Your task to perform on an android device: What is the news today? Image 0: 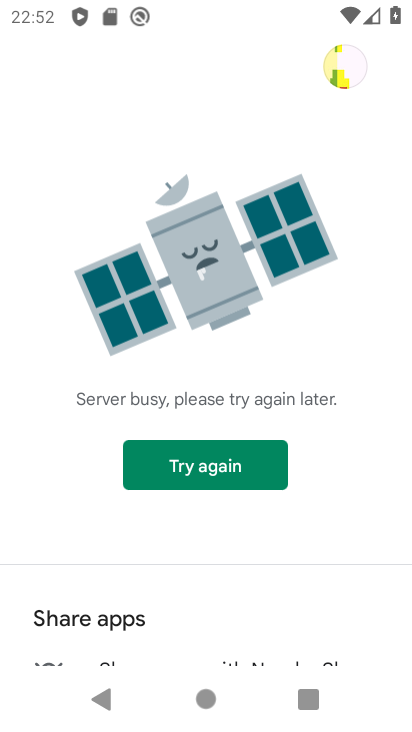
Step 0: press home button
Your task to perform on an android device: What is the news today? Image 1: 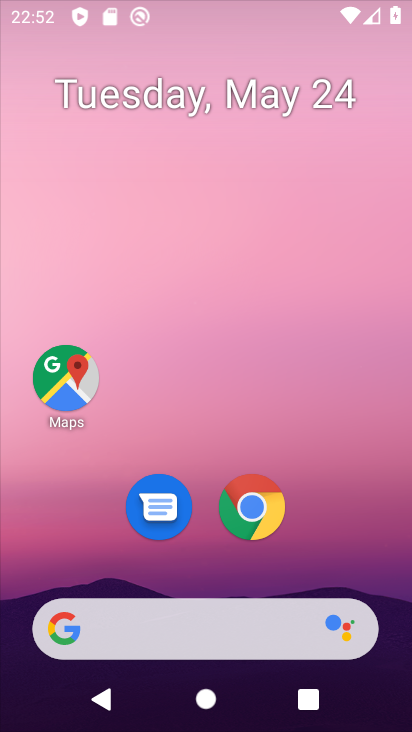
Step 1: drag from (286, 690) to (304, 135)
Your task to perform on an android device: What is the news today? Image 2: 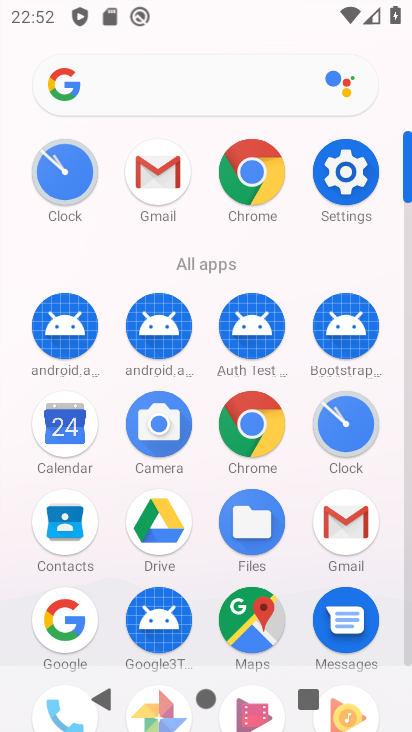
Step 2: click (242, 435)
Your task to perform on an android device: What is the news today? Image 3: 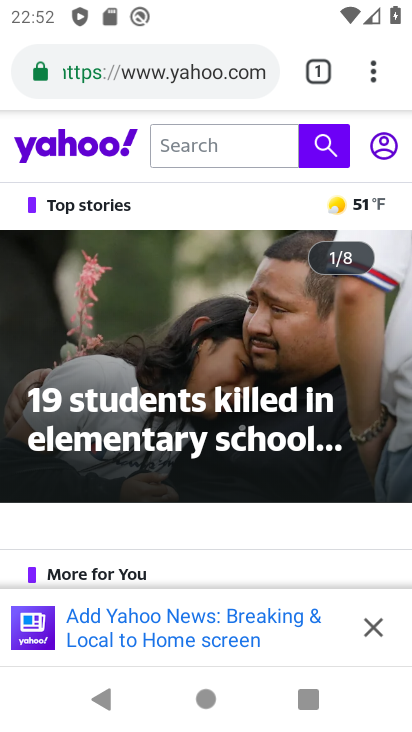
Step 3: click (196, 77)
Your task to perform on an android device: What is the news today? Image 4: 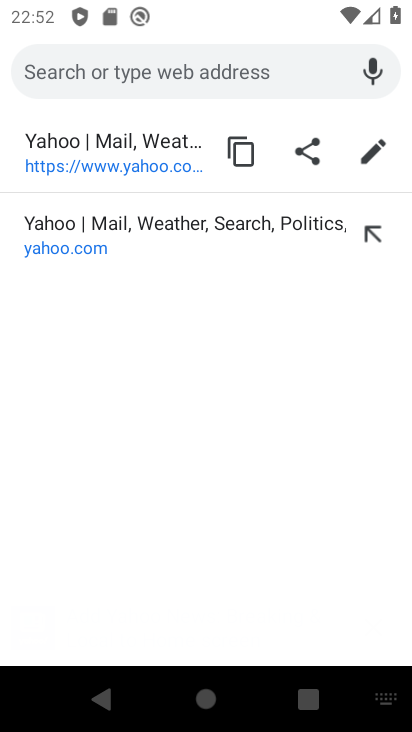
Step 4: type "news today"
Your task to perform on an android device: What is the news today? Image 5: 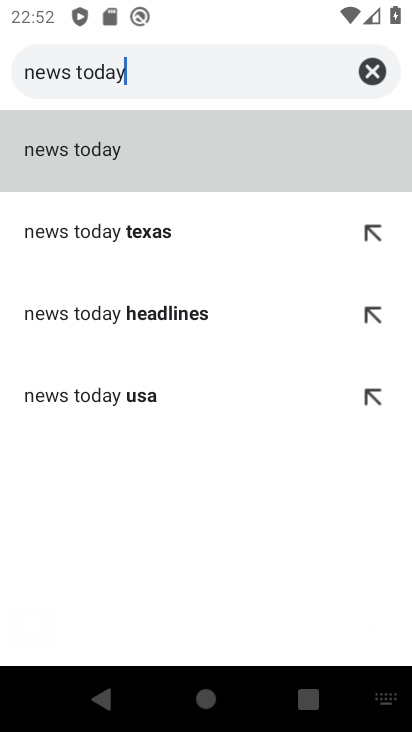
Step 5: click (87, 151)
Your task to perform on an android device: What is the news today? Image 6: 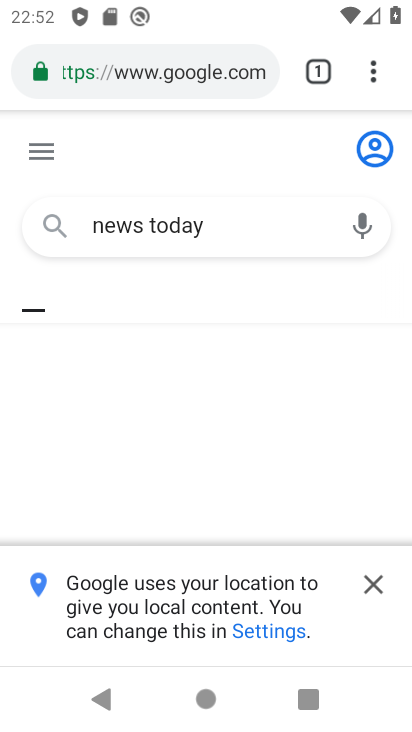
Step 6: task complete